Your task to perform on an android device: Go to wifi settings Image 0: 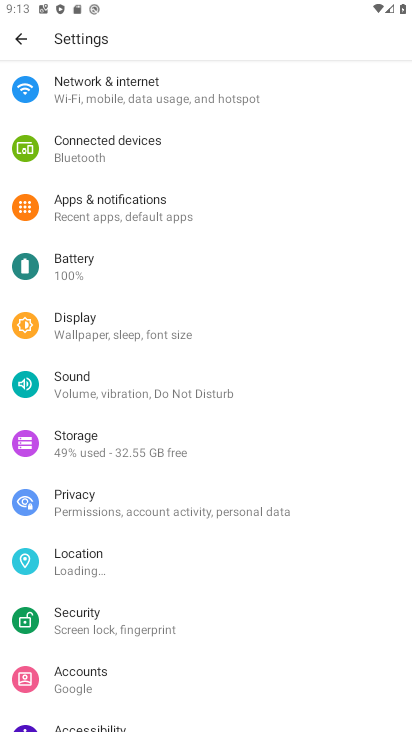
Step 0: press home button
Your task to perform on an android device: Go to wifi settings Image 1: 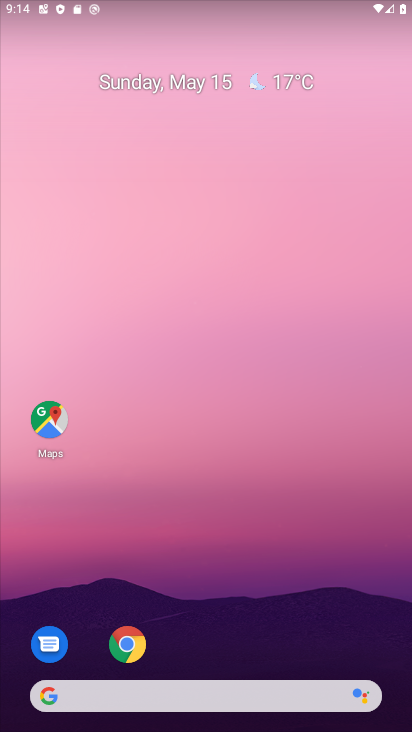
Step 1: drag from (239, 694) to (403, 7)
Your task to perform on an android device: Go to wifi settings Image 2: 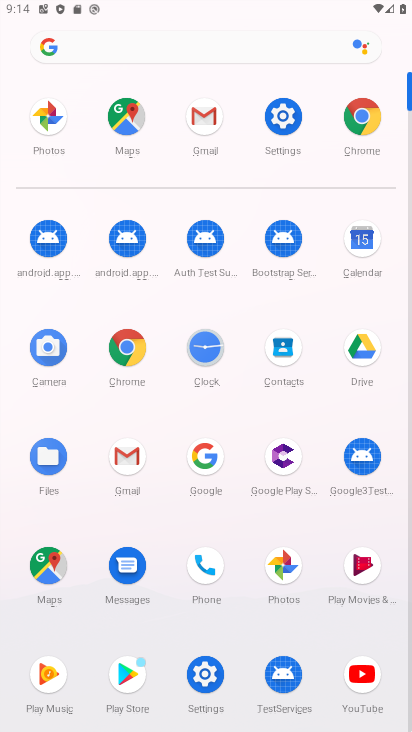
Step 2: click (299, 129)
Your task to perform on an android device: Go to wifi settings Image 3: 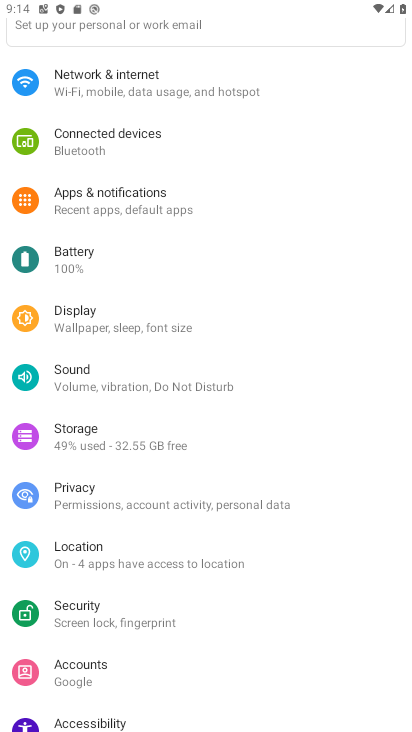
Step 3: click (123, 85)
Your task to perform on an android device: Go to wifi settings Image 4: 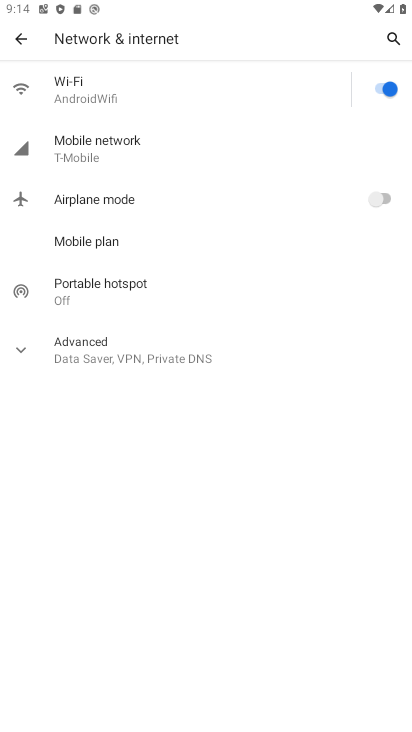
Step 4: click (119, 85)
Your task to perform on an android device: Go to wifi settings Image 5: 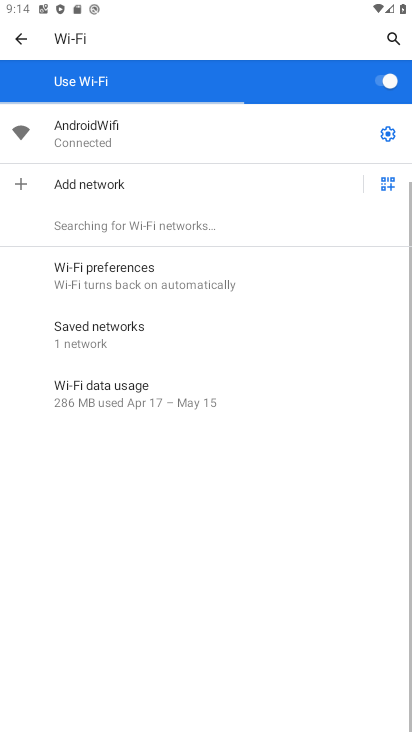
Step 5: task complete